Your task to perform on an android device: Open internet settings Image 0: 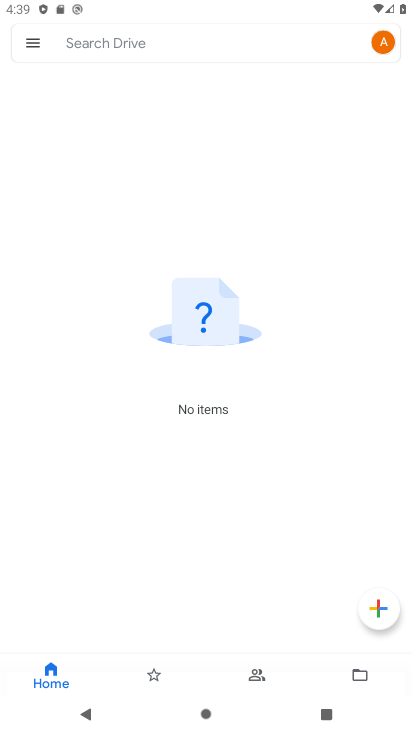
Step 0: press home button
Your task to perform on an android device: Open internet settings Image 1: 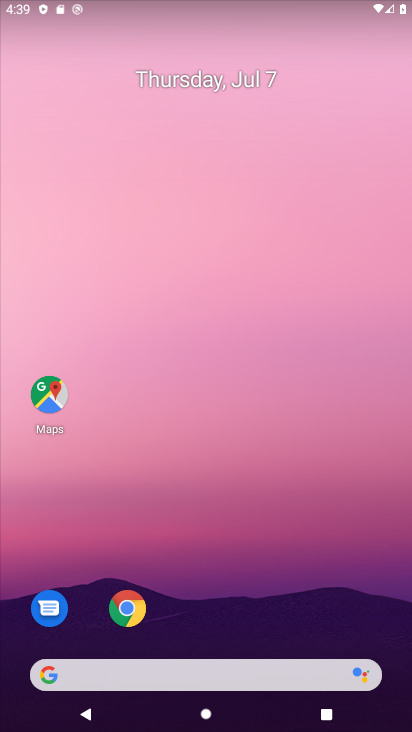
Step 1: drag from (211, 625) to (225, 85)
Your task to perform on an android device: Open internet settings Image 2: 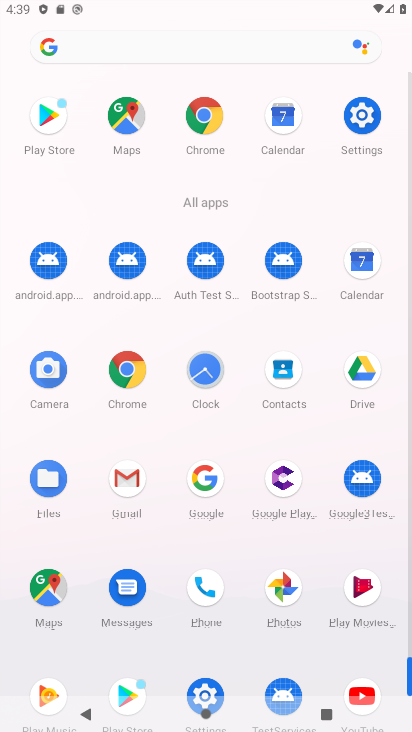
Step 2: click (367, 103)
Your task to perform on an android device: Open internet settings Image 3: 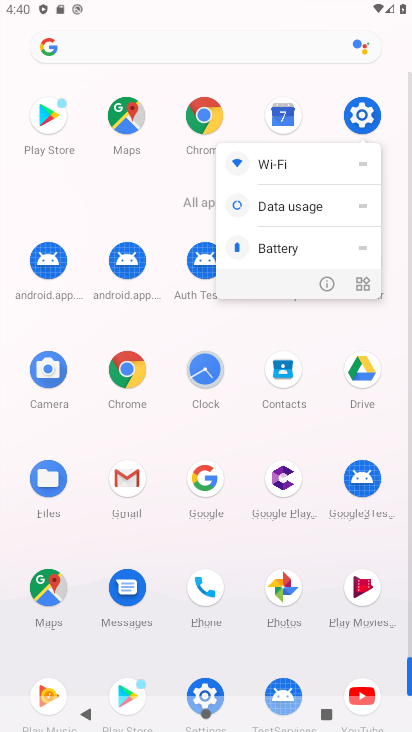
Step 3: click (356, 118)
Your task to perform on an android device: Open internet settings Image 4: 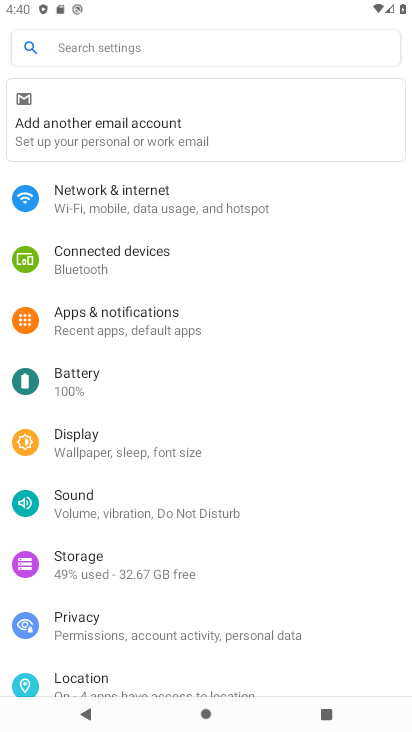
Step 4: click (127, 197)
Your task to perform on an android device: Open internet settings Image 5: 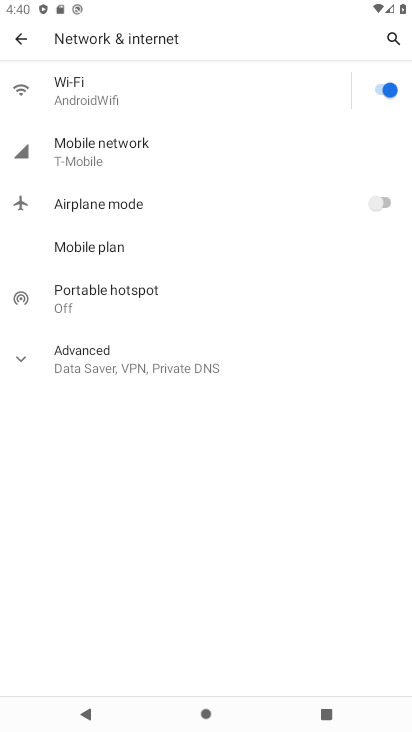
Step 5: click (42, 352)
Your task to perform on an android device: Open internet settings Image 6: 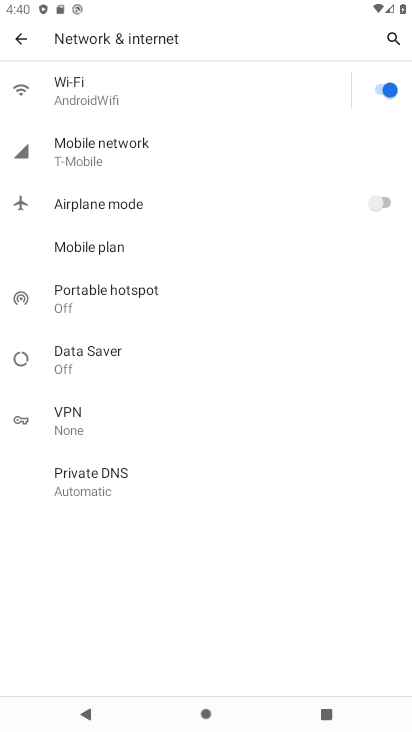
Step 6: task complete